Your task to perform on an android device: turn vacation reply on in the gmail app Image 0: 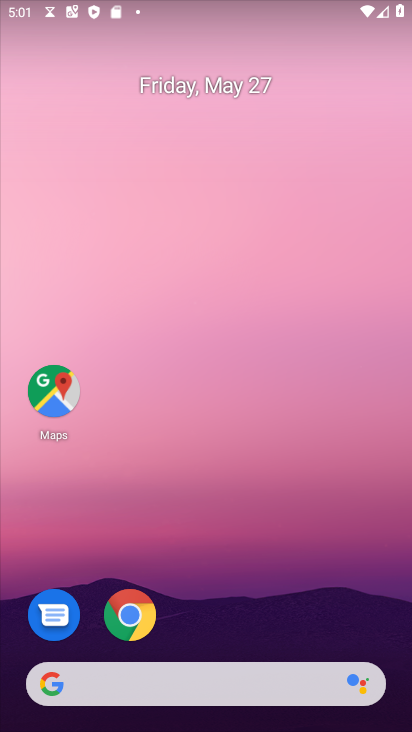
Step 0: drag from (243, 587) to (153, 0)
Your task to perform on an android device: turn vacation reply on in the gmail app Image 1: 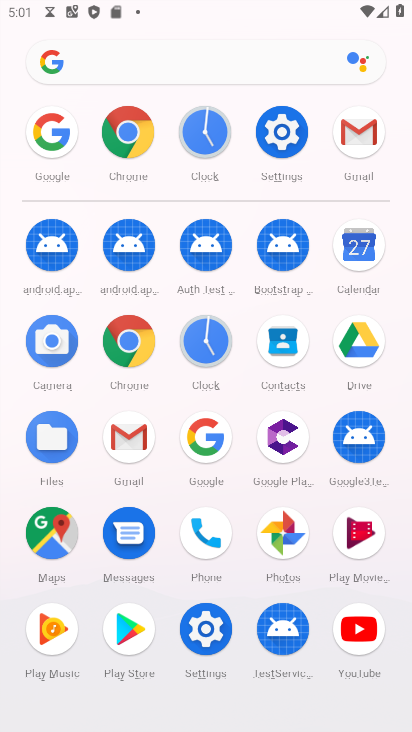
Step 1: click (137, 444)
Your task to perform on an android device: turn vacation reply on in the gmail app Image 2: 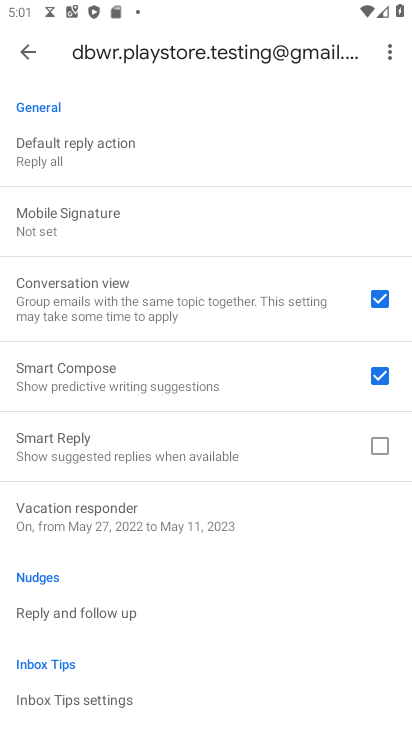
Step 2: click (137, 528)
Your task to perform on an android device: turn vacation reply on in the gmail app Image 3: 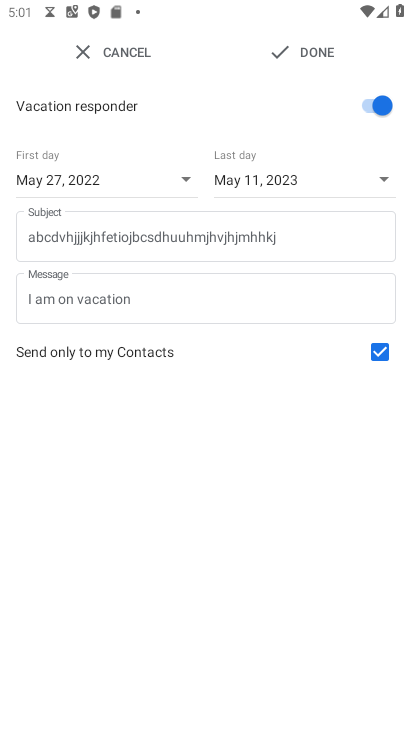
Step 3: click (302, 55)
Your task to perform on an android device: turn vacation reply on in the gmail app Image 4: 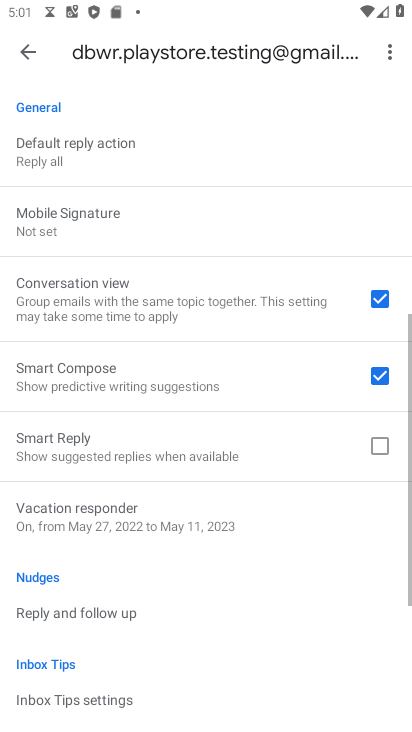
Step 4: task complete